Your task to perform on an android device: Open internet settings Image 0: 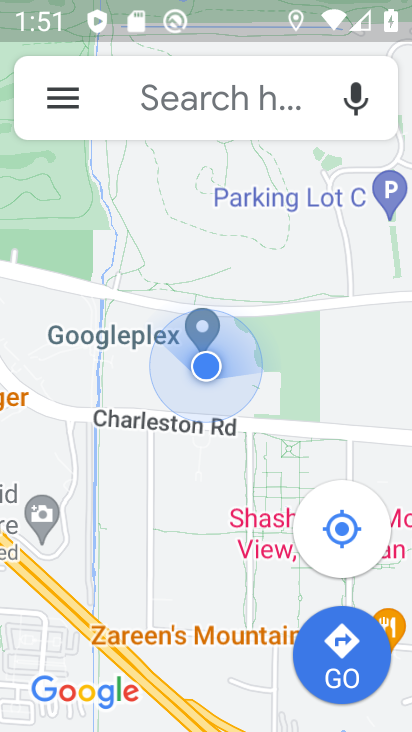
Step 0: press home button
Your task to perform on an android device: Open internet settings Image 1: 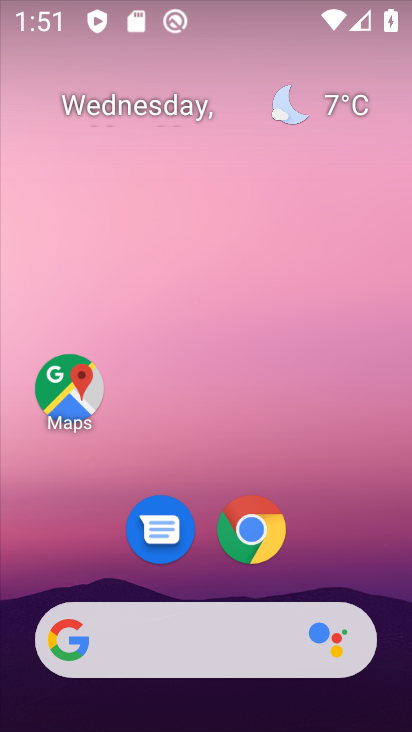
Step 1: task complete